Your task to perform on an android device: See recent photos Image 0: 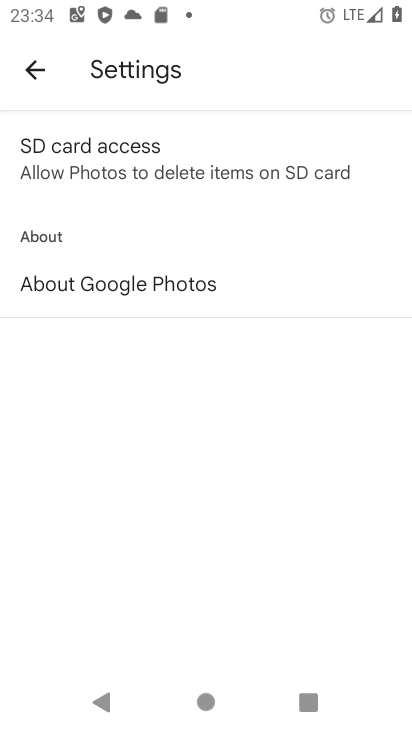
Step 0: press home button
Your task to perform on an android device: See recent photos Image 1: 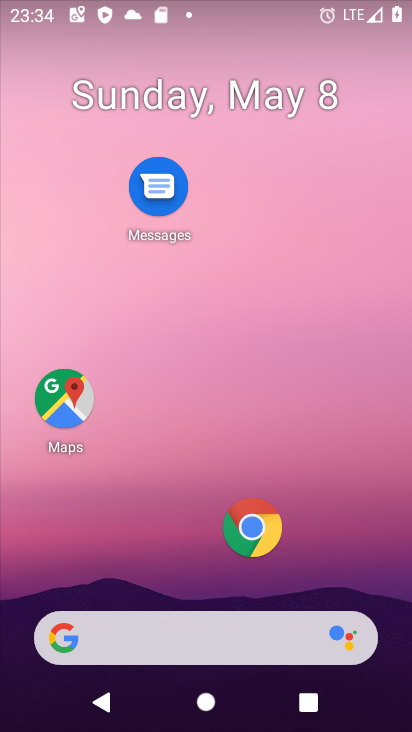
Step 1: drag from (163, 566) to (284, 123)
Your task to perform on an android device: See recent photos Image 2: 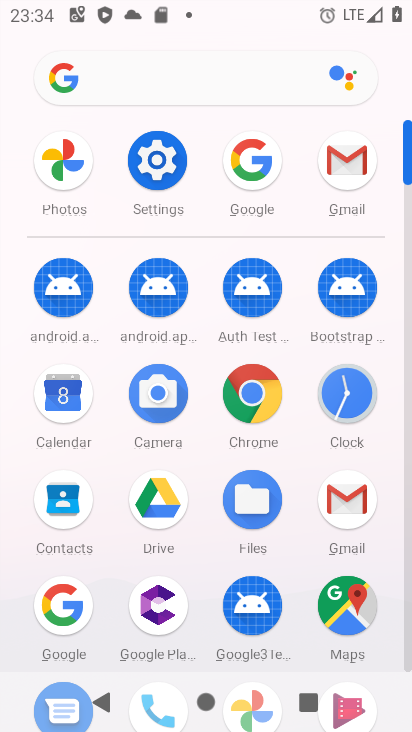
Step 2: click (58, 162)
Your task to perform on an android device: See recent photos Image 3: 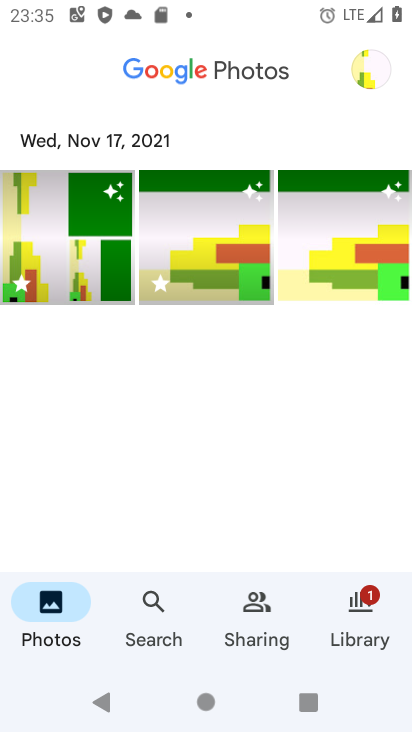
Step 3: task complete